Your task to perform on an android device: Open Youtube and go to the subscriptions tab Image 0: 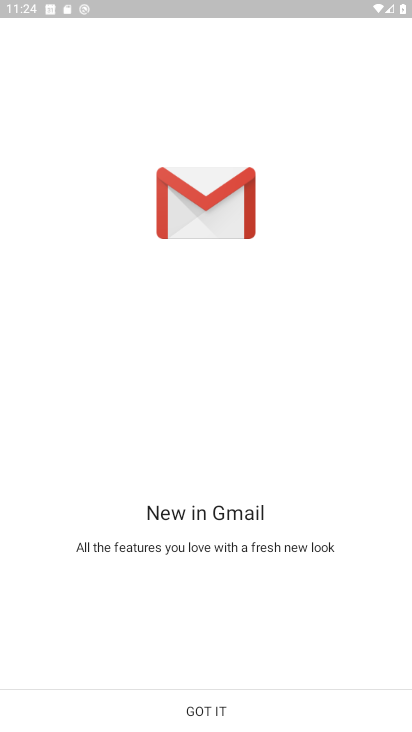
Step 0: press home button
Your task to perform on an android device: Open Youtube and go to the subscriptions tab Image 1: 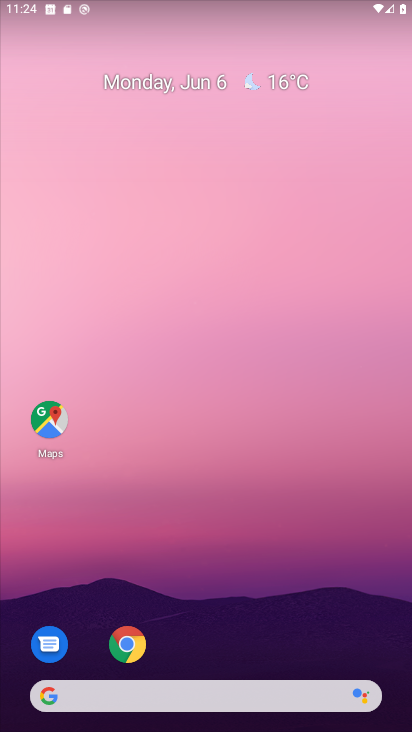
Step 1: drag from (226, 632) to (295, 116)
Your task to perform on an android device: Open Youtube and go to the subscriptions tab Image 2: 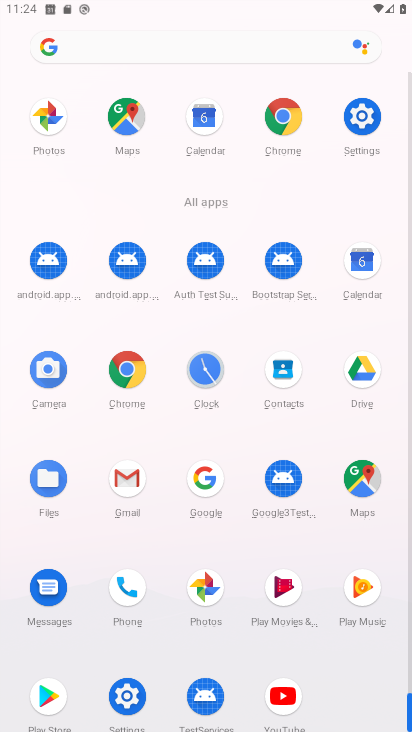
Step 2: click (271, 689)
Your task to perform on an android device: Open Youtube and go to the subscriptions tab Image 3: 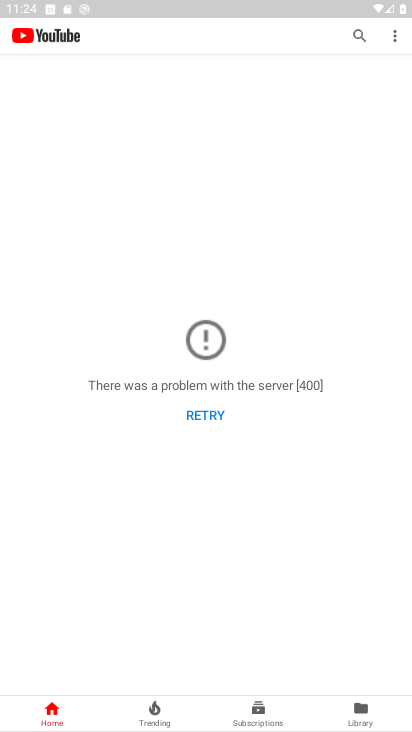
Step 3: click (266, 712)
Your task to perform on an android device: Open Youtube and go to the subscriptions tab Image 4: 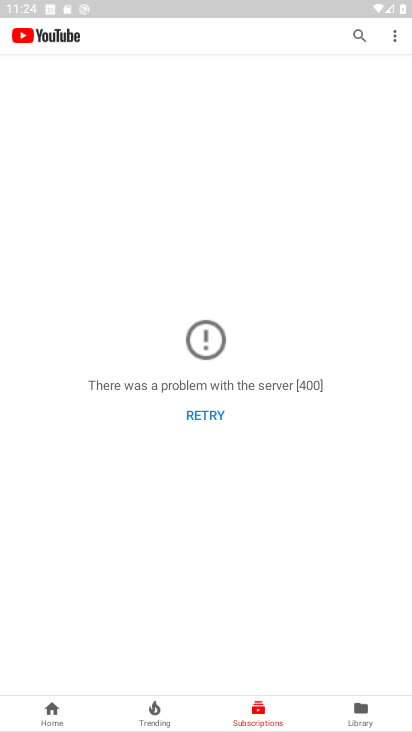
Step 4: click (266, 712)
Your task to perform on an android device: Open Youtube and go to the subscriptions tab Image 5: 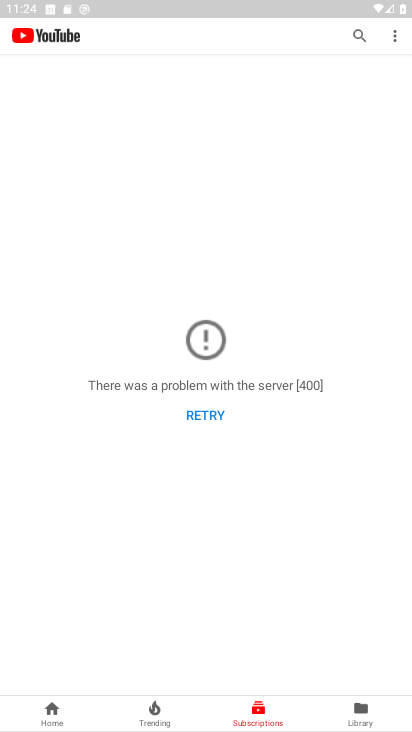
Step 5: task complete